Your task to perform on an android device: turn pop-ups on in chrome Image 0: 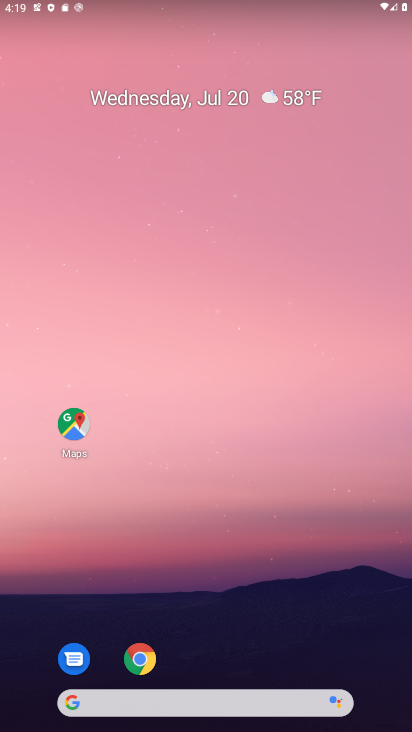
Step 0: drag from (155, 566) to (73, 83)
Your task to perform on an android device: turn pop-ups on in chrome Image 1: 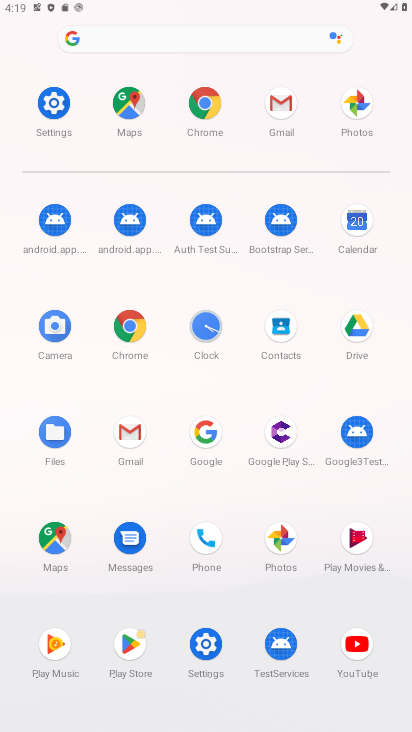
Step 1: click (202, 100)
Your task to perform on an android device: turn pop-ups on in chrome Image 2: 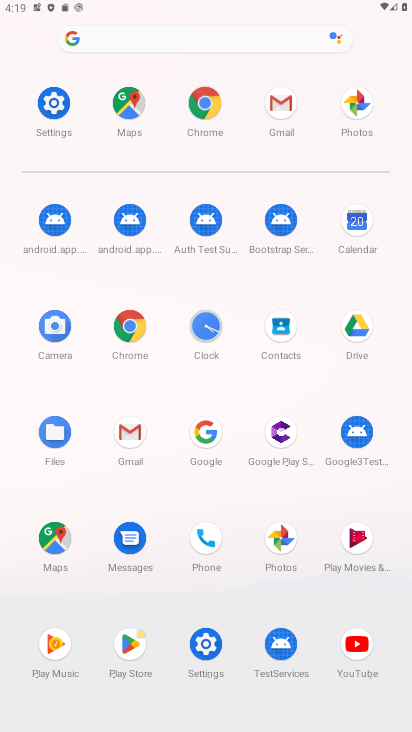
Step 2: click (202, 100)
Your task to perform on an android device: turn pop-ups on in chrome Image 3: 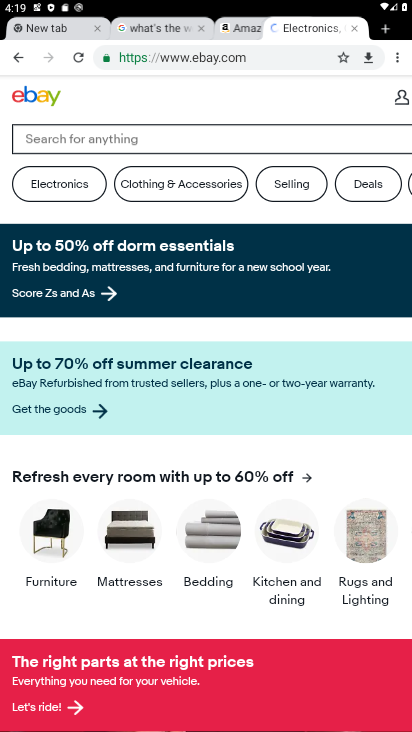
Step 3: drag from (395, 53) to (300, 381)
Your task to perform on an android device: turn pop-ups on in chrome Image 4: 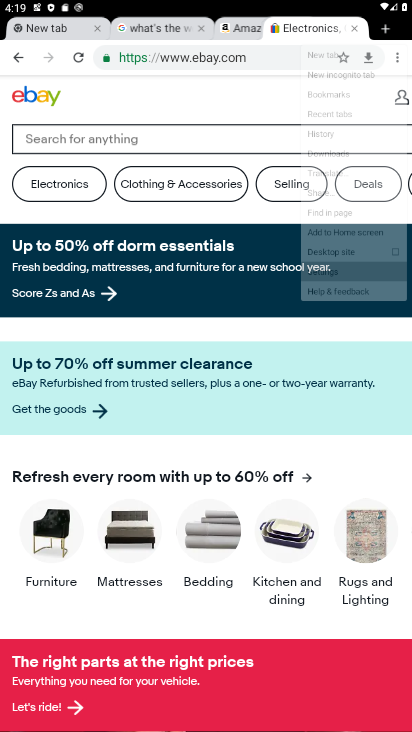
Step 4: click (298, 375)
Your task to perform on an android device: turn pop-ups on in chrome Image 5: 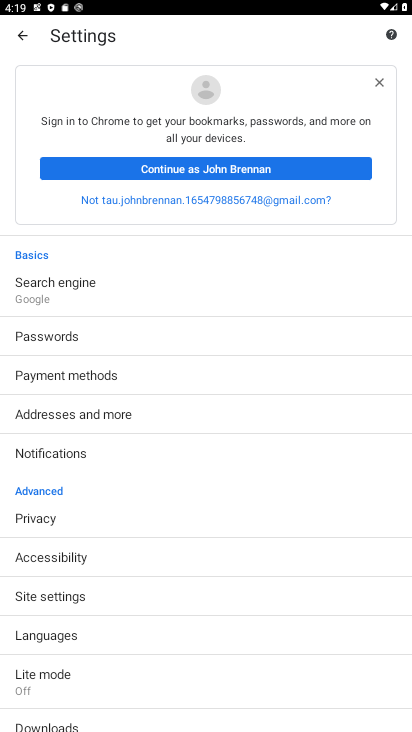
Step 5: click (40, 596)
Your task to perform on an android device: turn pop-ups on in chrome Image 6: 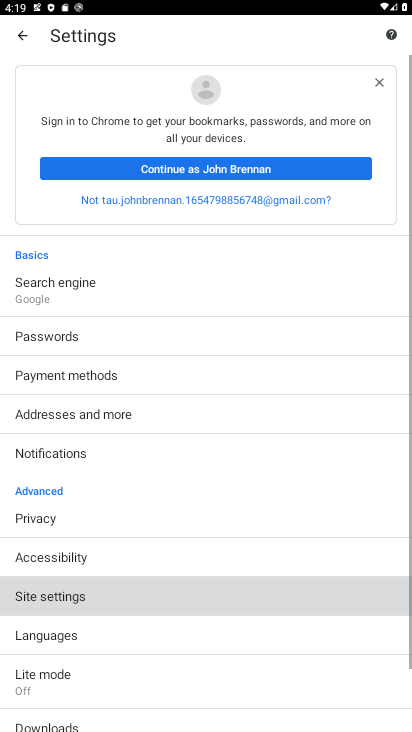
Step 6: click (41, 596)
Your task to perform on an android device: turn pop-ups on in chrome Image 7: 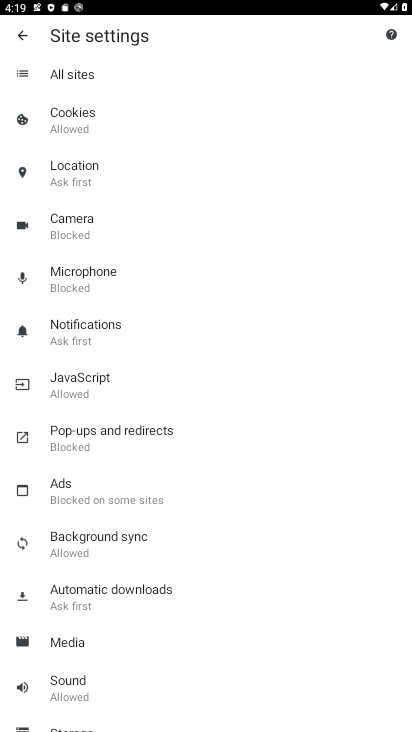
Step 7: click (111, 427)
Your task to perform on an android device: turn pop-ups on in chrome Image 8: 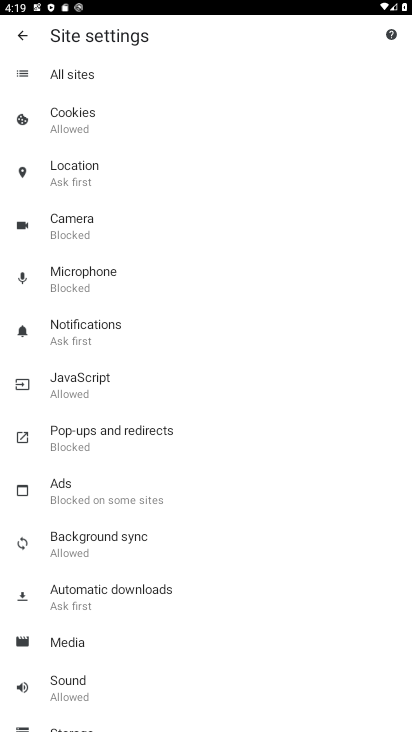
Step 8: click (111, 427)
Your task to perform on an android device: turn pop-ups on in chrome Image 9: 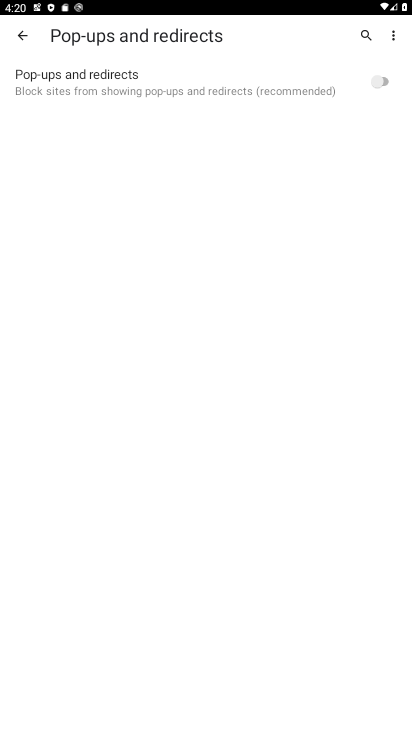
Step 9: click (381, 88)
Your task to perform on an android device: turn pop-ups on in chrome Image 10: 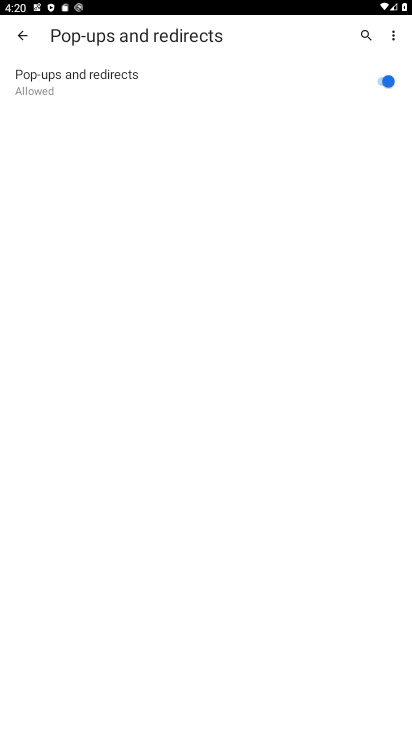
Step 10: task complete